Your task to perform on an android device: change text size in settings app Image 0: 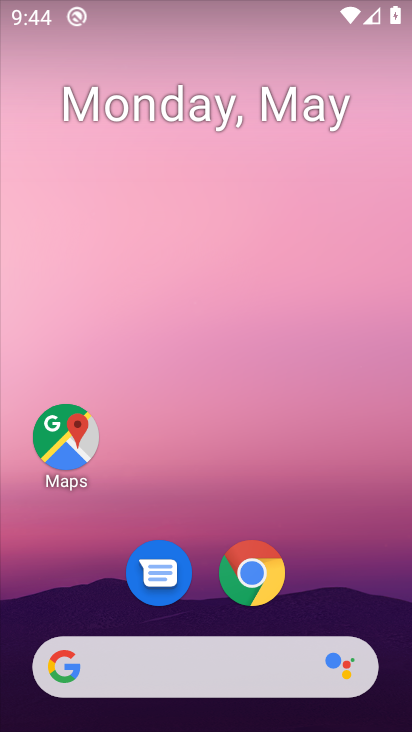
Step 0: drag from (222, 470) to (245, 115)
Your task to perform on an android device: change text size in settings app Image 1: 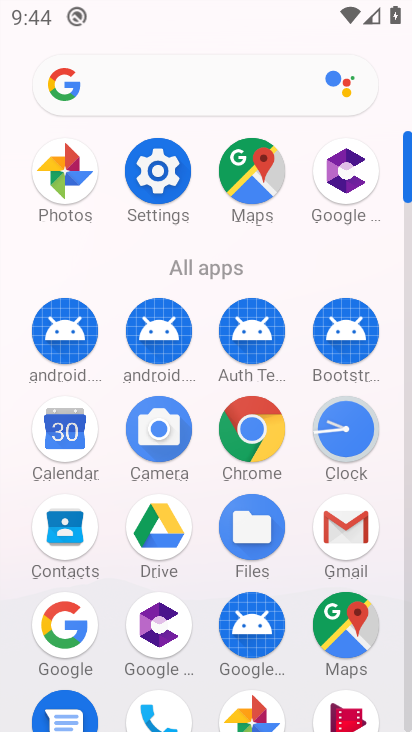
Step 1: click (161, 158)
Your task to perform on an android device: change text size in settings app Image 2: 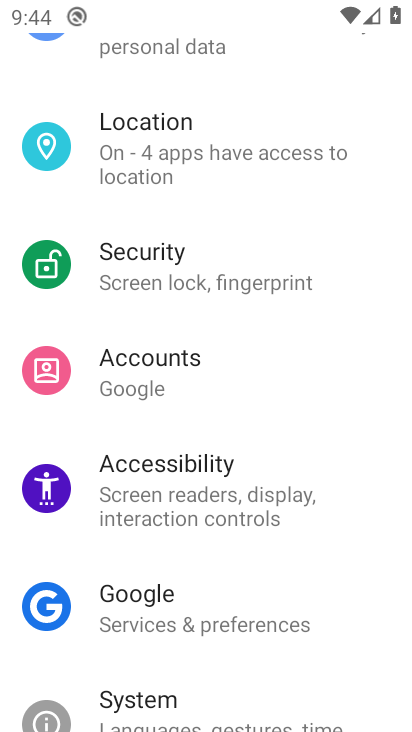
Step 2: drag from (225, 156) to (237, 722)
Your task to perform on an android device: change text size in settings app Image 3: 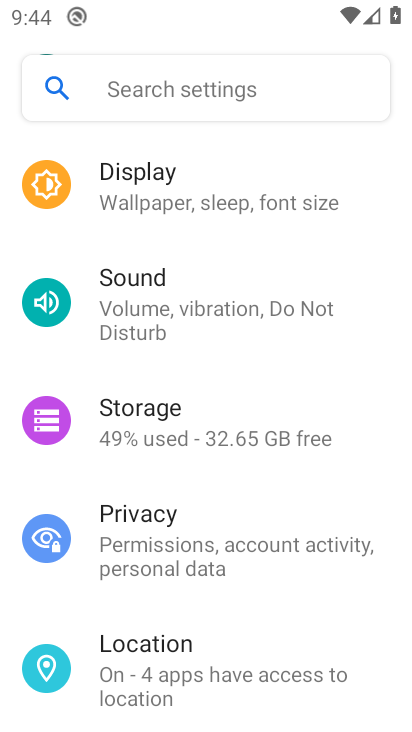
Step 3: click (178, 87)
Your task to perform on an android device: change text size in settings app Image 4: 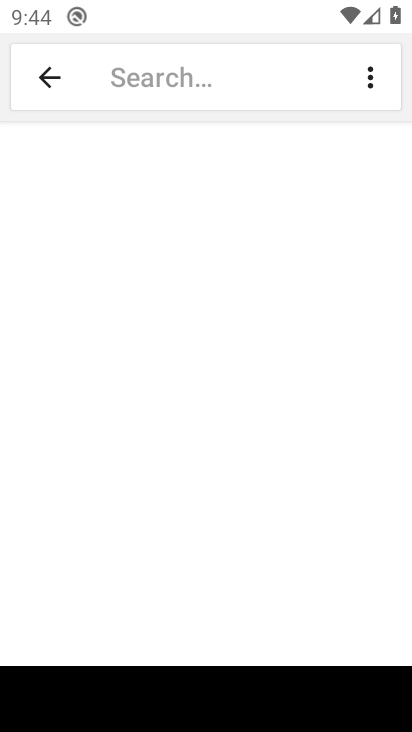
Step 4: type "text size"
Your task to perform on an android device: change text size in settings app Image 5: 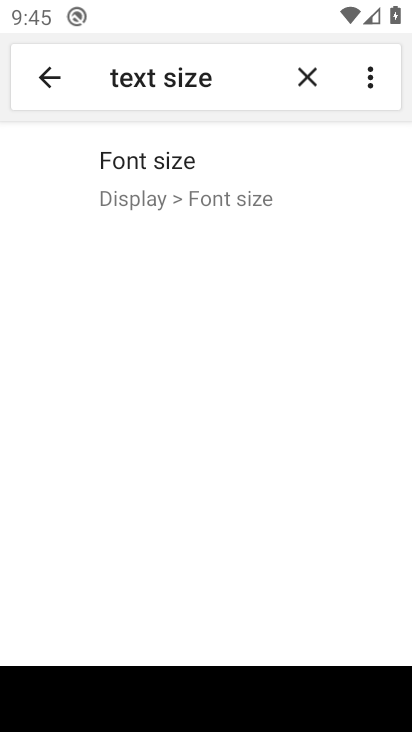
Step 5: click (183, 190)
Your task to perform on an android device: change text size in settings app Image 6: 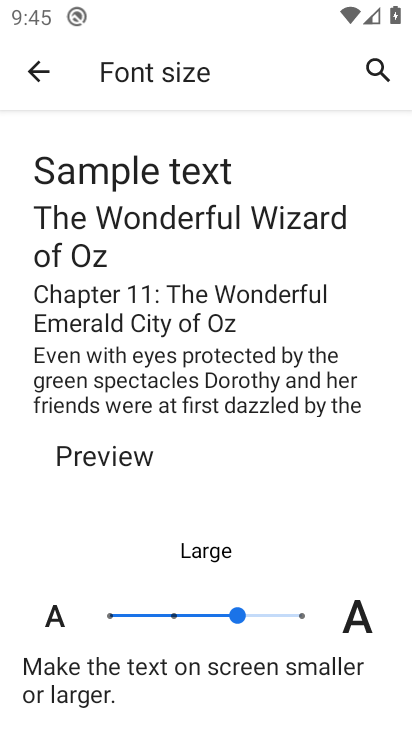
Step 6: task complete